Your task to perform on an android device: Open CNN.com Image 0: 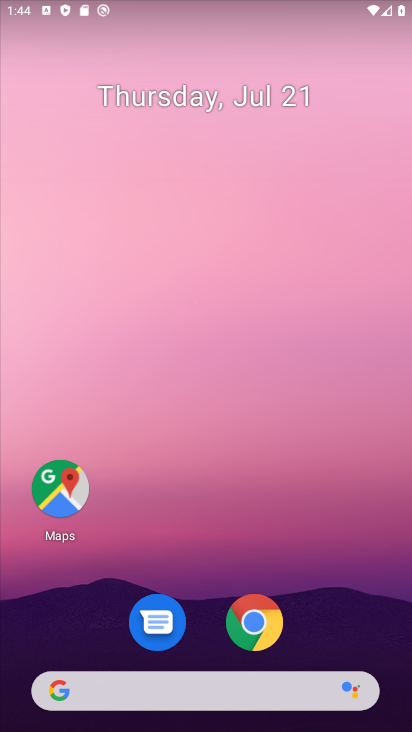
Step 0: click (271, 618)
Your task to perform on an android device: Open CNN.com Image 1: 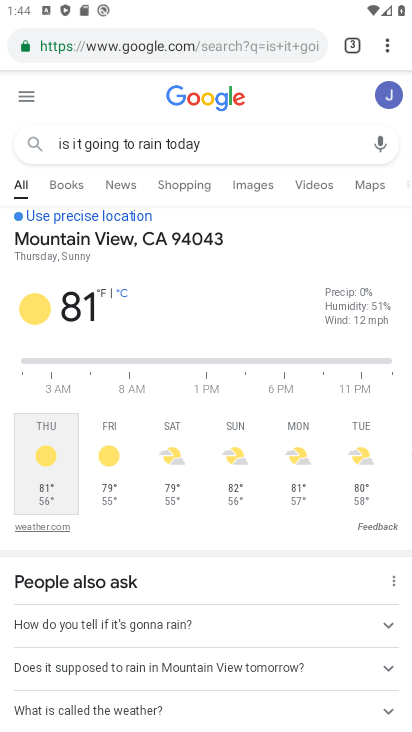
Step 1: click (203, 41)
Your task to perform on an android device: Open CNN.com Image 2: 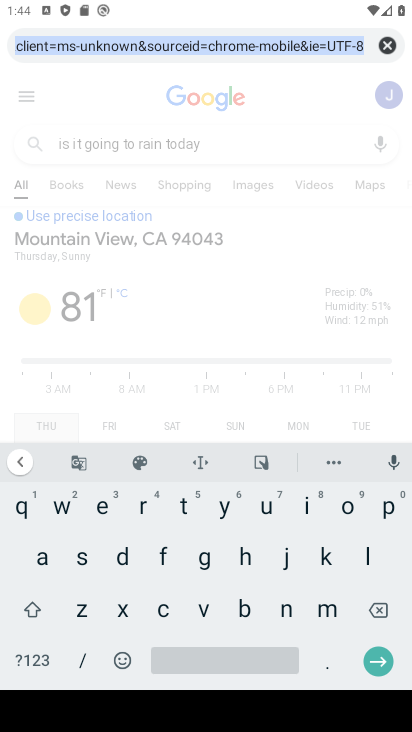
Step 2: click (154, 609)
Your task to perform on an android device: Open CNN.com Image 3: 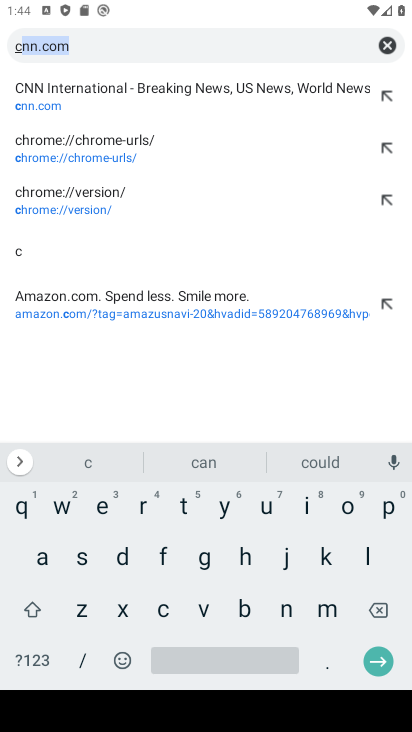
Step 3: click (123, 44)
Your task to perform on an android device: Open CNN.com Image 4: 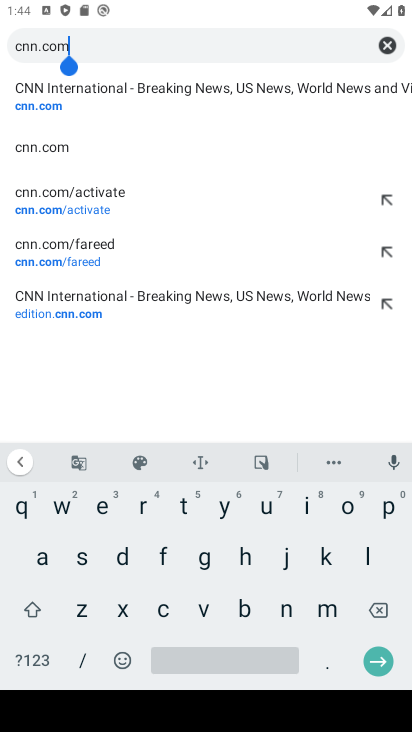
Step 4: click (382, 663)
Your task to perform on an android device: Open CNN.com Image 5: 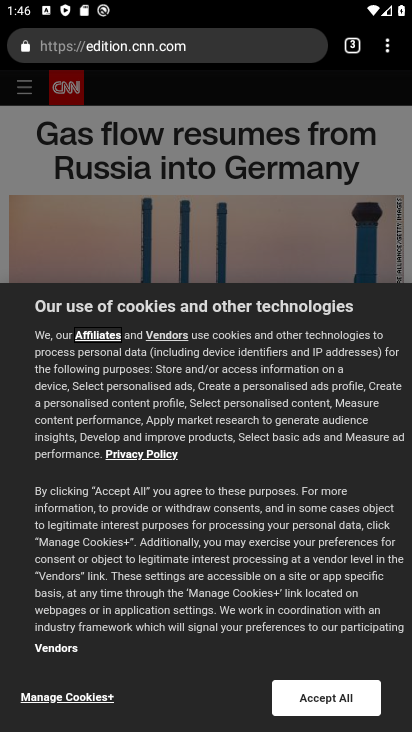
Step 5: click (319, 691)
Your task to perform on an android device: Open CNN.com Image 6: 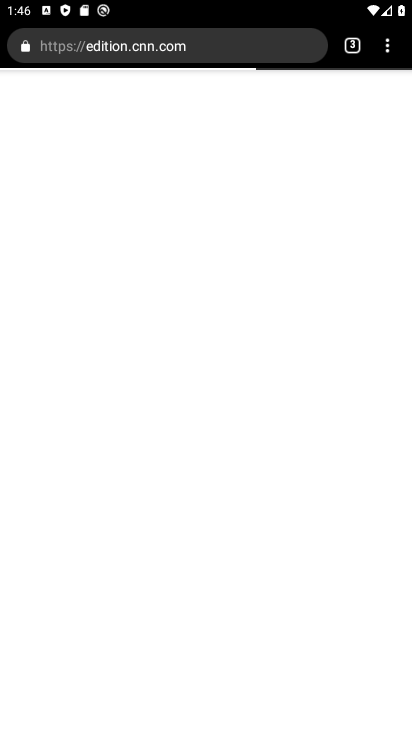
Step 6: task complete